Your task to perform on an android device: Play the last video I watched on Youtube Image 0: 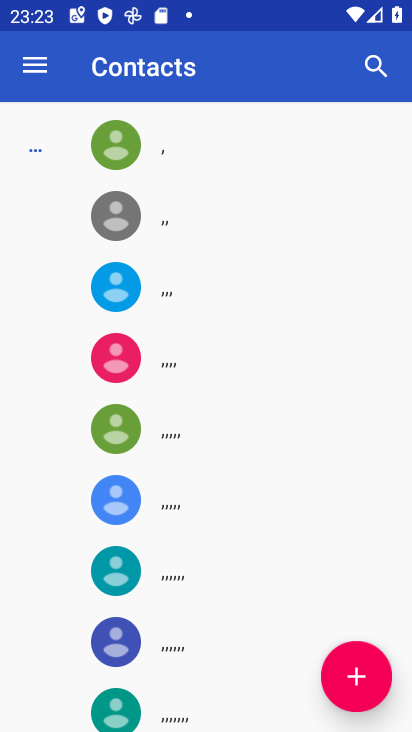
Step 0: press home button
Your task to perform on an android device: Play the last video I watched on Youtube Image 1: 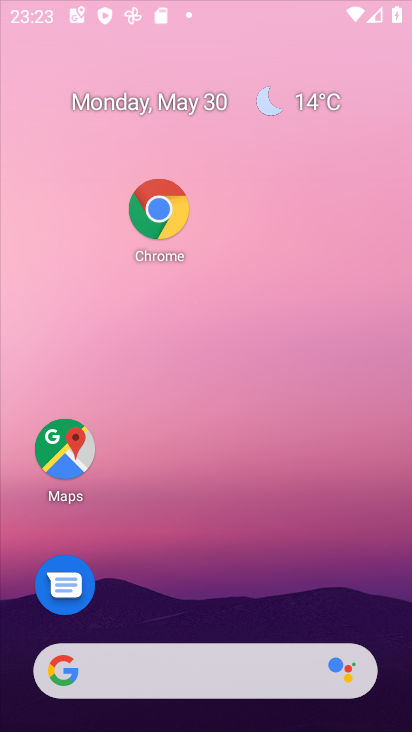
Step 1: drag from (214, 630) to (316, 115)
Your task to perform on an android device: Play the last video I watched on Youtube Image 2: 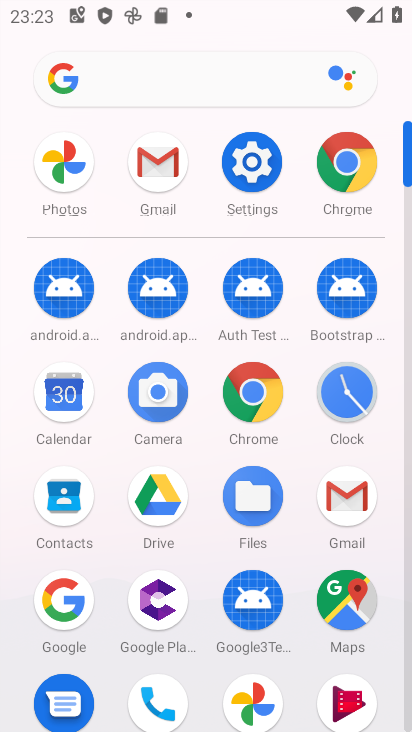
Step 2: drag from (201, 676) to (198, 202)
Your task to perform on an android device: Play the last video I watched on Youtube Image 3: 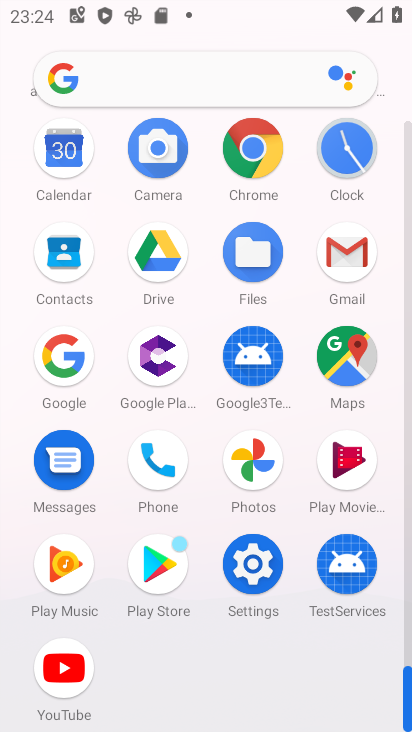
Step 3: click (66, 675)
Your task to perform on an android device: Play the last video I watched on Youtube Image 4: 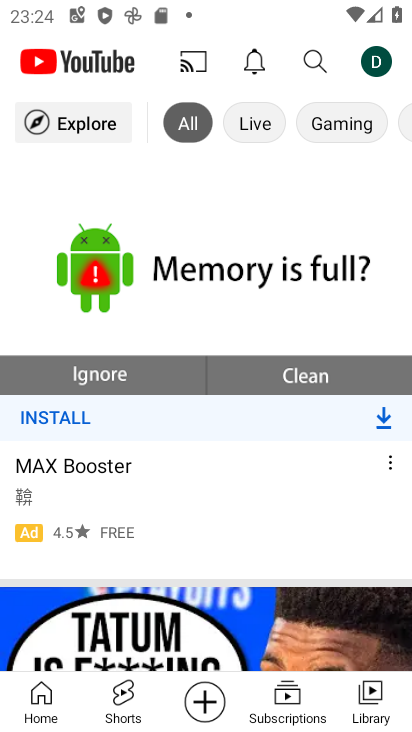
Step 4: click (374, 691)
Your task to perform on an android device: Play the last video I watched on Youtube Image 5: 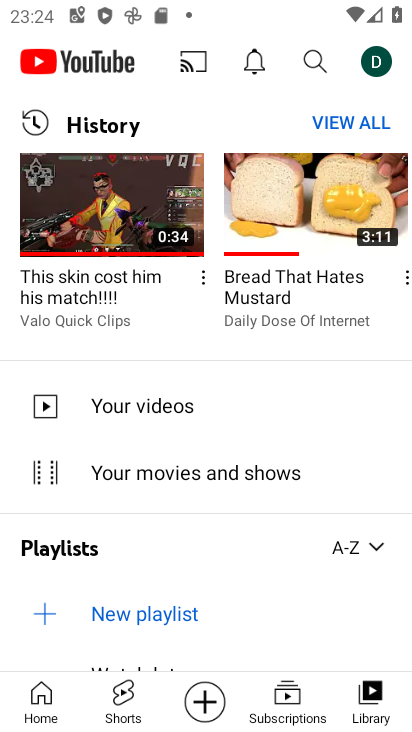
Step 5: click (135, 209)
Your task to perform on an android device: Play the last video I watched on Youtube Image 6: 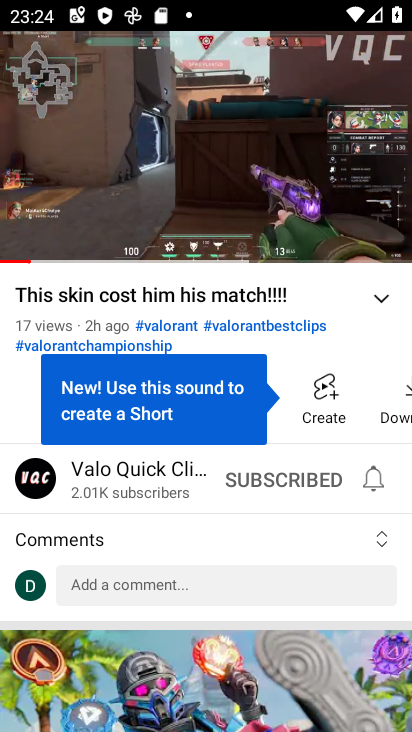
Step 6: task complete